Your task to perform on an android device: clear history in the chrome app Image 0: 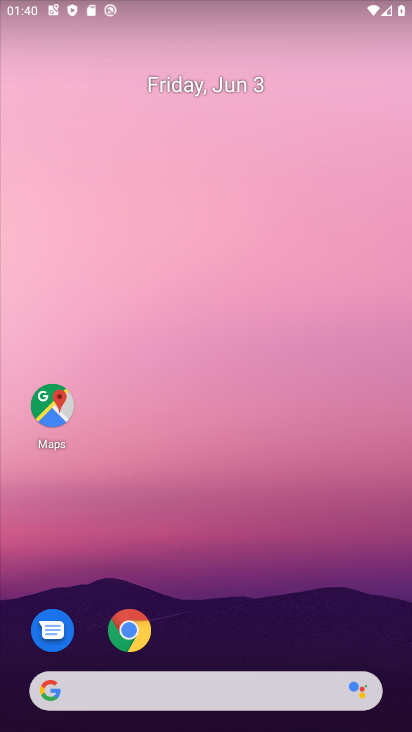
Step 0: click (134, 623)
Your task to perform on an android device: clear history in the chrome app Image 1: 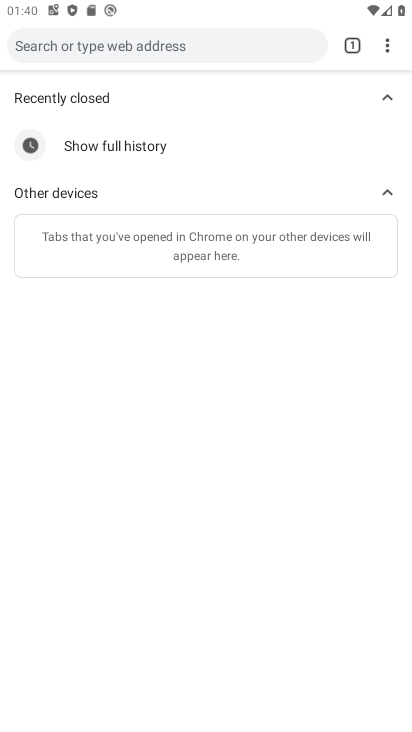
Step 1: click (387, 62)
Your task to perform on an android device: clear history in the chrome app Image 2: 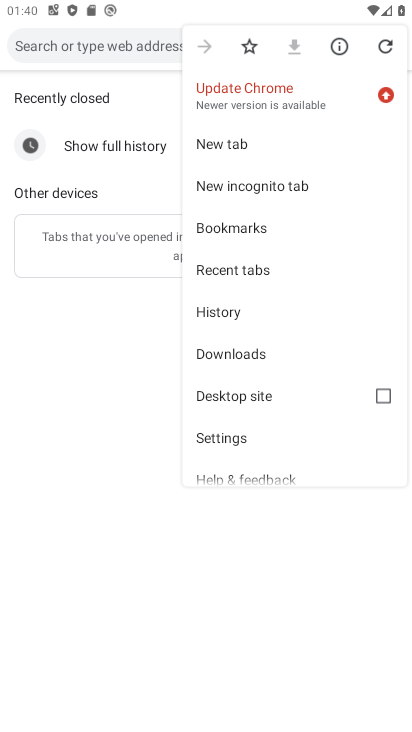
Step 2: click (217, 319)
Your task to perform on an android device: clear history in the chrome app Image 3: 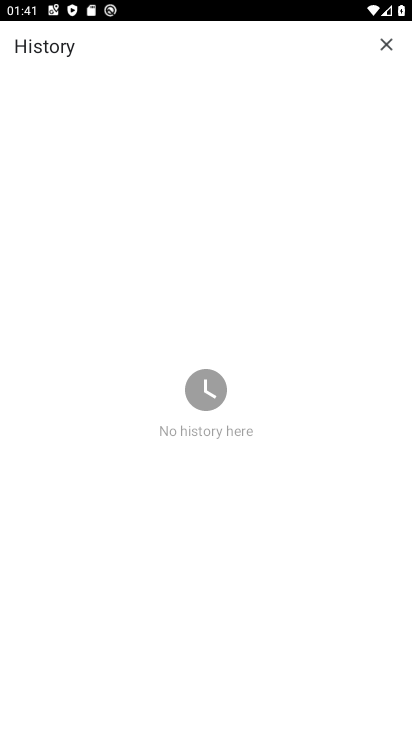
Step 3: task complete